Your task to perform on an android device: Search for seafood restaurants on Google Maps Image 0: 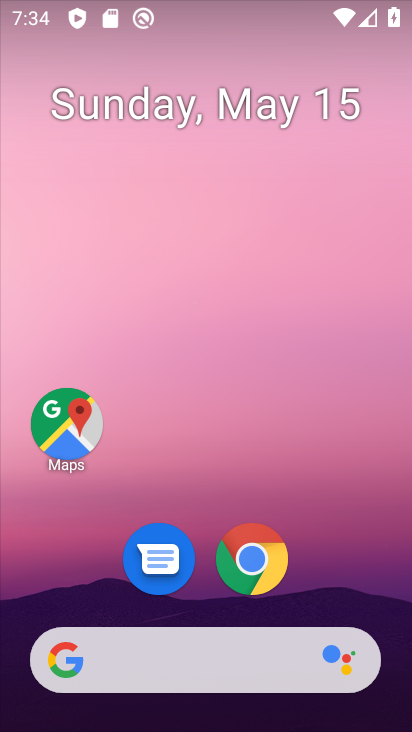
Step 0: click (257, 571)
Your task to perform on an android device: Search for seafood restaurants on Google Maps Image 1: 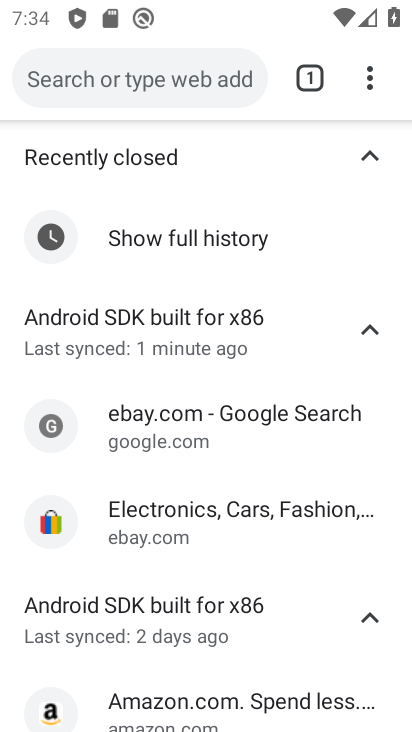
Step 1: press home button
Your task to perform on an android device: Search for seafood restaurants on Google Maps Image 2: 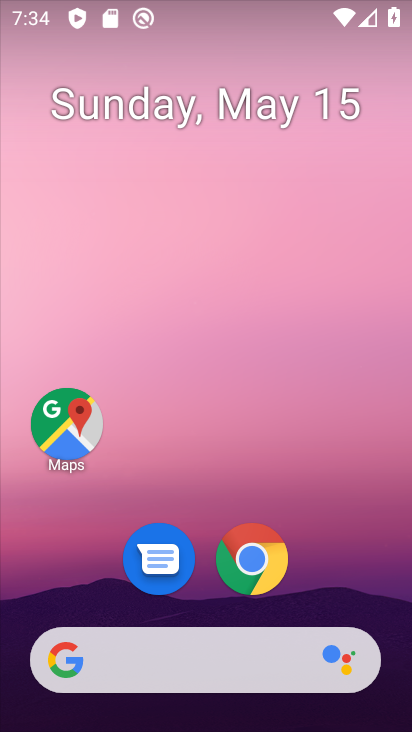
Step 2: click (94, 421)
Your task to perform on an android device: Search for seafood restaurants on Google Maps Image 3: 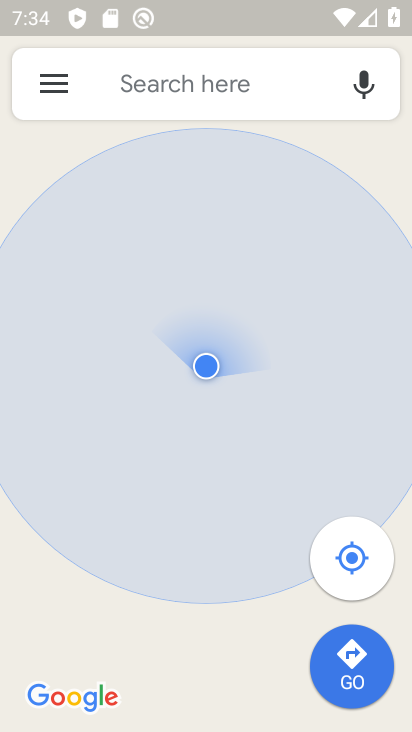
Step 3: click (199, 98)
Your task to perform on an android device: Search for seafood restaurants on Google Maps Image 4: 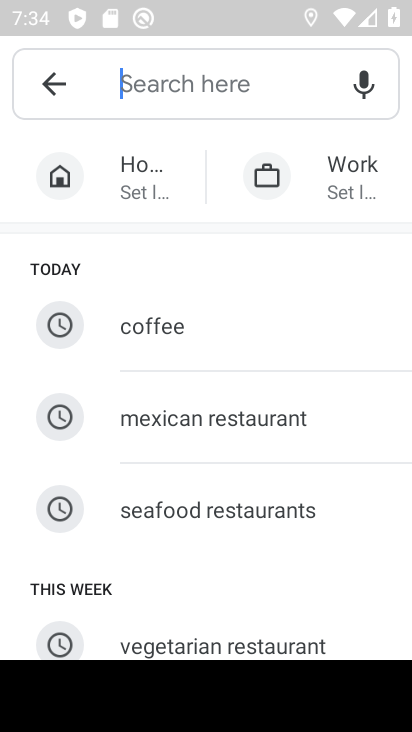
Step 4: click (154, 502)
Your task to perform on an android device: Search for seafood restaurants on Google Maps Image 5: 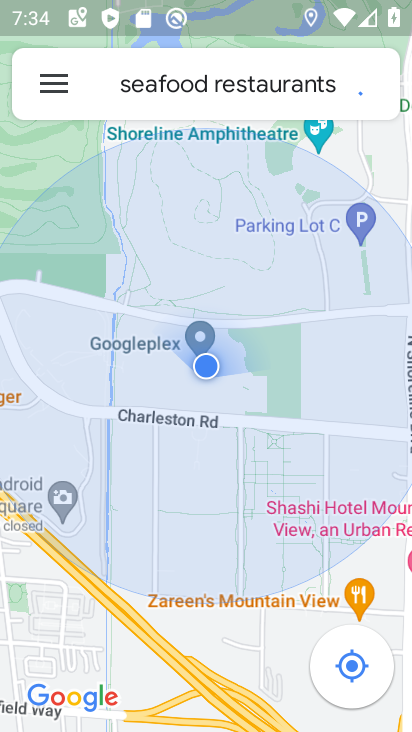
Step 5: task complete